Your task to perform on an android device: Find coffee shops on Maps Image 0: 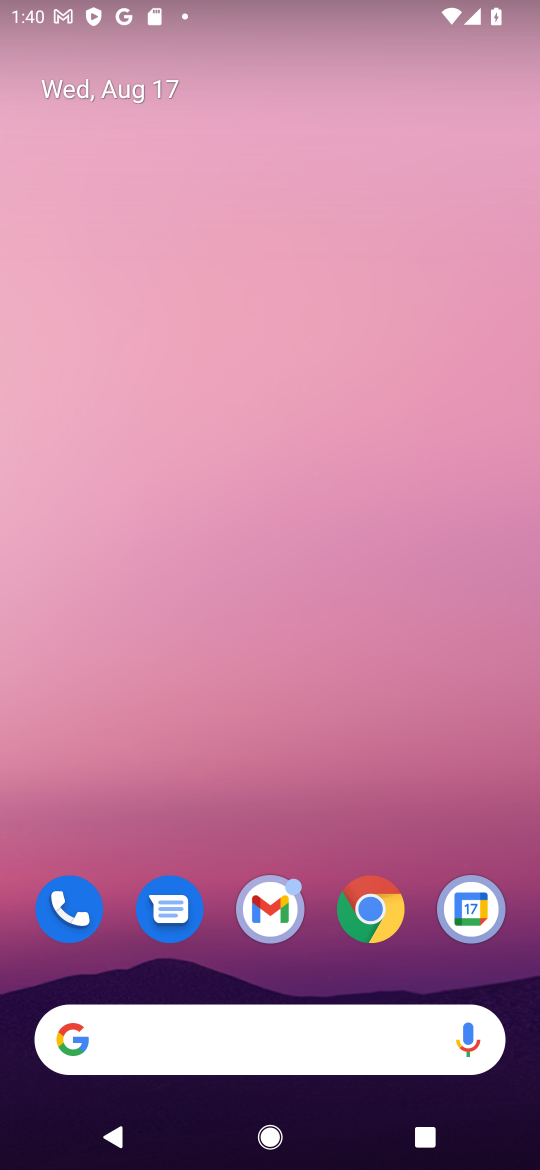
Step 0: drag from (287, 779) to (322, 172)
Your task to perform on an android device: Find coffee shops on Maps Image 1: 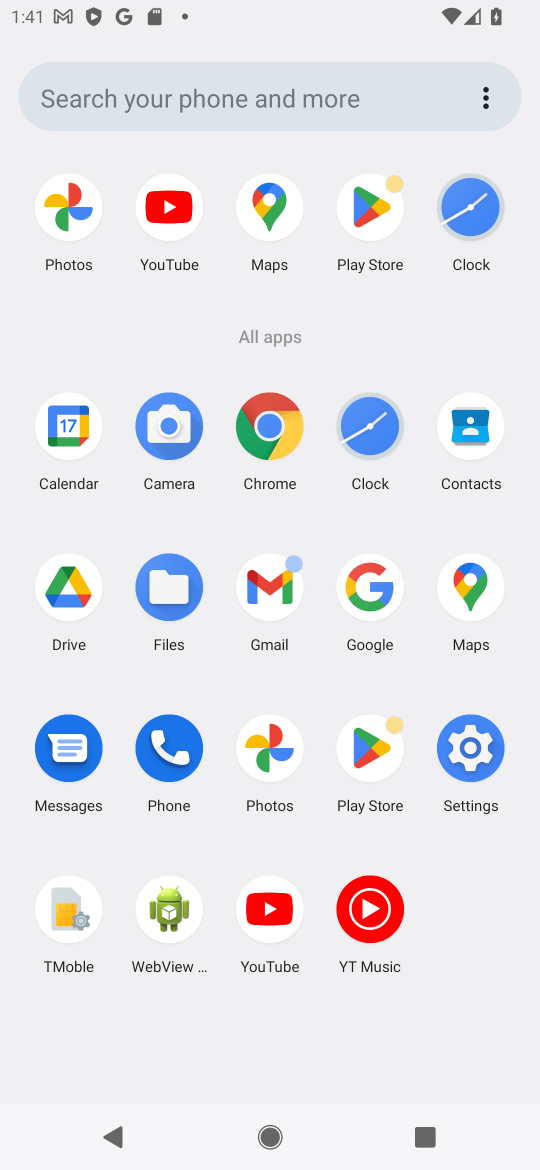
Step 1: task complete